Your task to perform on an android device: Go to accessibility settings Image 0: 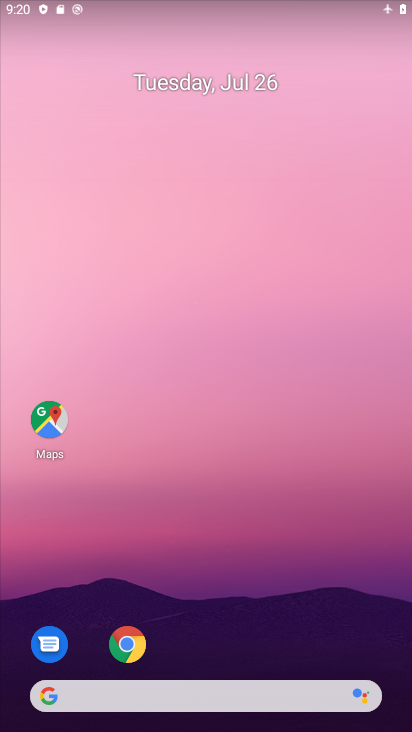
Step 0: drag from (249, 603) to (270, 330)
Your task to perform on an android device: Go to accessibility settings Image 1: 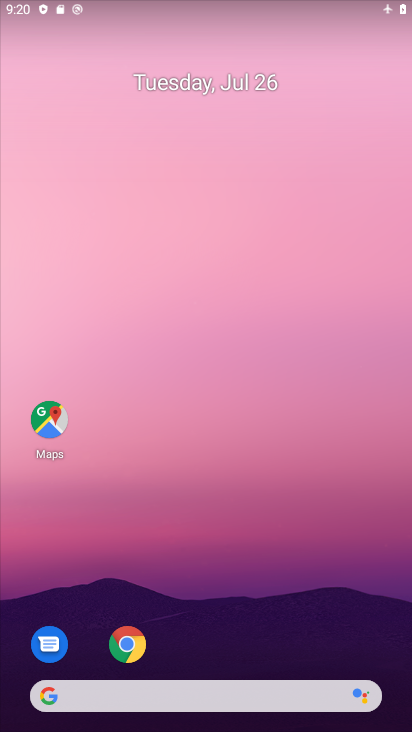
Step 1: drag from (183, 623) to (237, 142)
Your task to perform on an android device: Go to accessibility settings Image 2: 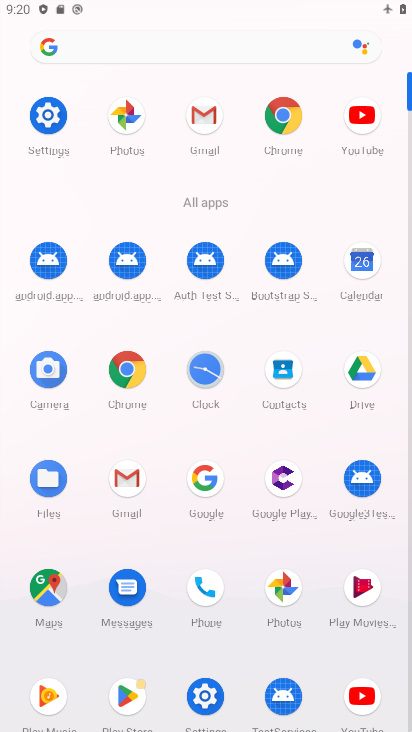
Step 2: click (212, 695)
Your task to perform on an android device: Go to accessibility settings Image 3: 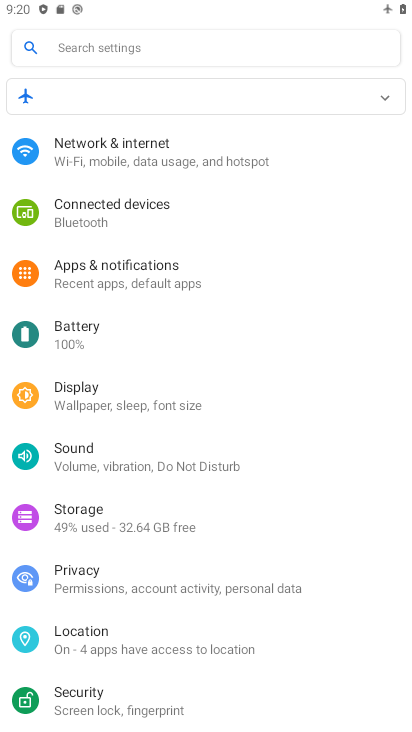
Step 3: drag from (102, 671) to (143, 372)
Your task to perform on an android device: Go to accessibility settings Image 4: 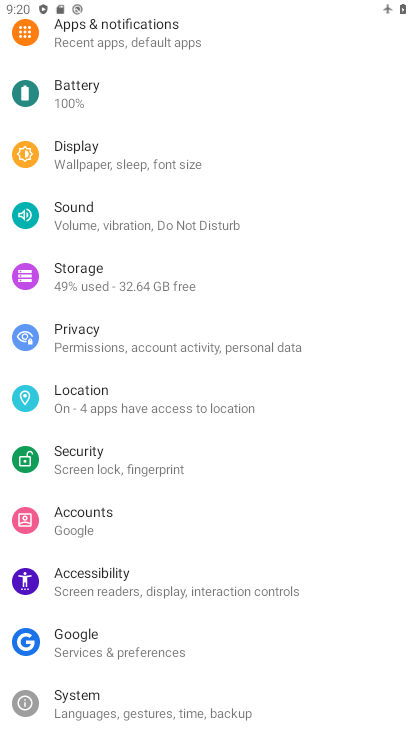
Step 4: click (111, 578)
Your task to perform on an android device: Go to accessibility settings Image 5: 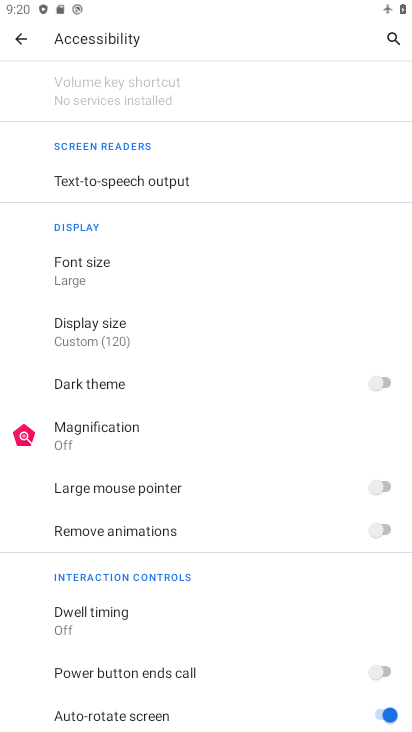
Step 5: task complete